Your task to perform on an android device: change alarm snooze length Image 0: 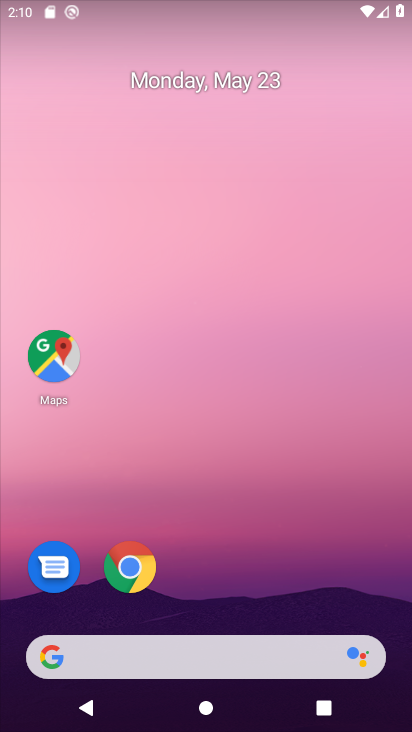
Step 0: drag from (227, 611) to (206, 177)
Your task to perform on an android device: change alarm snooze length Image 1: 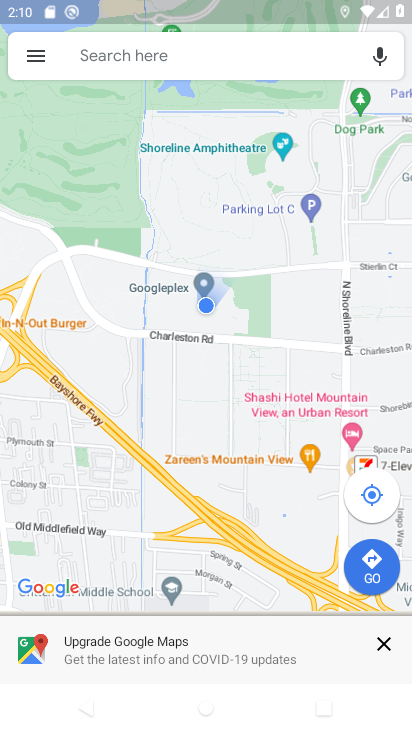
Step 1: press home button
Your task to perform on an android device: change alarm snooze length Image 2: 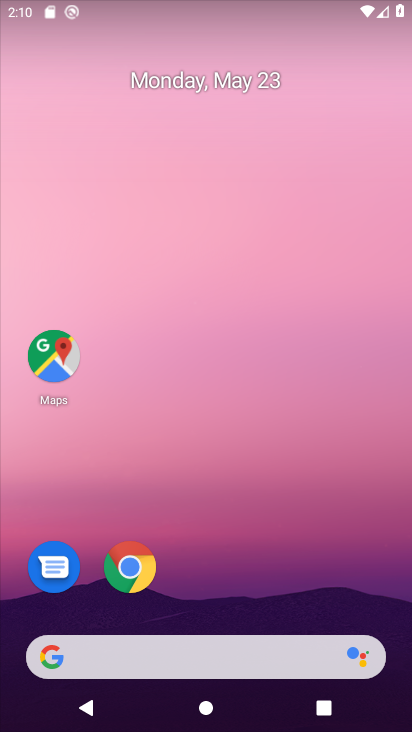
Step 2: drag from (185, 593) to (203, 155)
Your task to perform on an android device: change alarm snooze length Image 3: 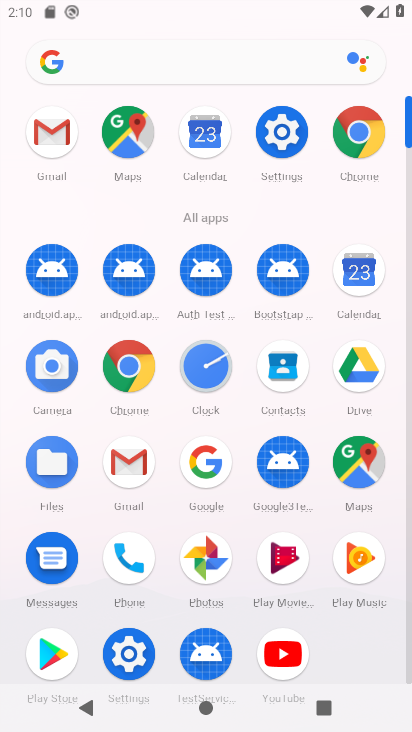
Step 3: click (193, 380)
Your task to perform on an android device: change alarm snooze length Image 4: 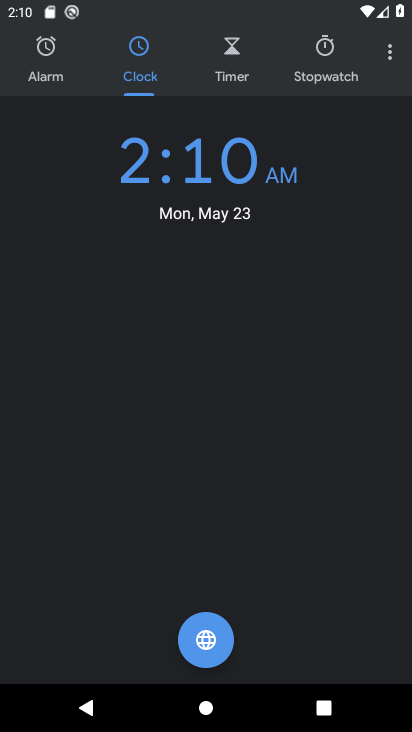
Step 4: click (385, 64)
Your task to perform on an android device: change alarm snooze length Image 5: 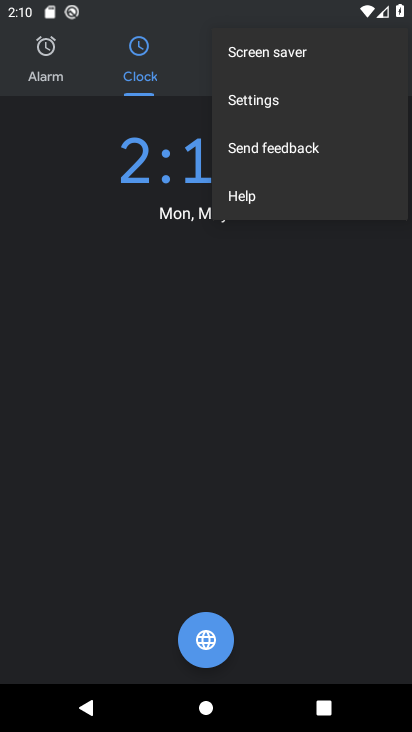
Step 5: click (302, 91)
Your task to perform on an android device: change alarm snooze length Image 6: 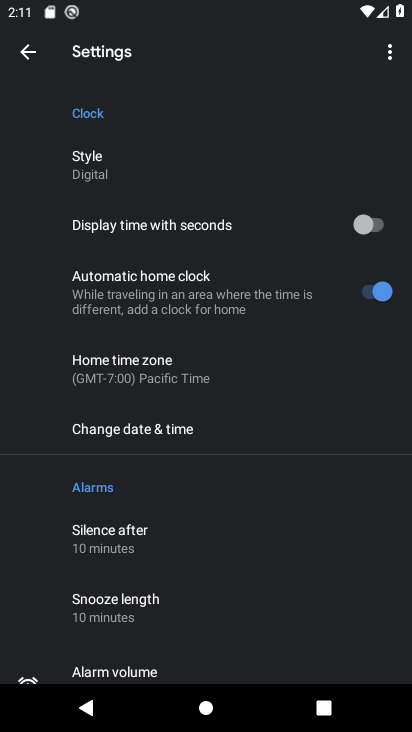
Step 6: click (167, 600)
Your task to perform on an android device: change alarm snooze length Image 7: 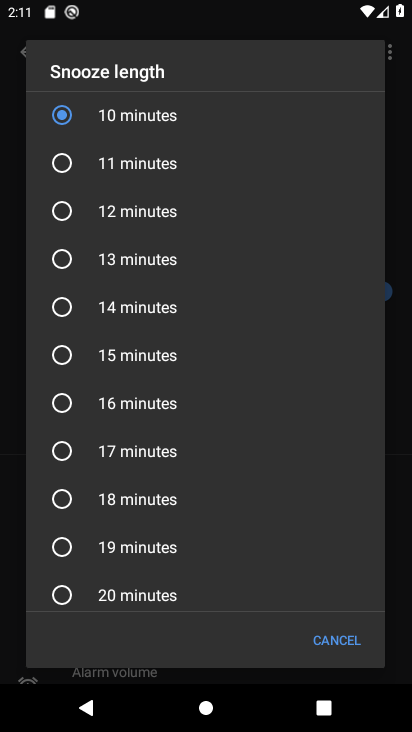
Step 7: click (135, 457)
Your task to perform on an android device: change alarm snooze length Image 8: 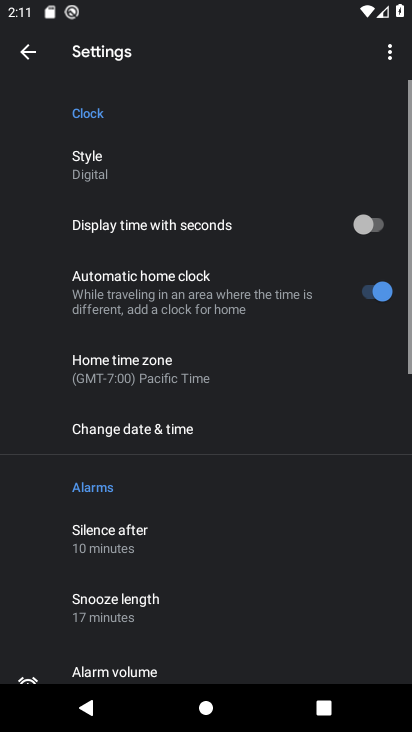
Step 8: task complete